Your task to perform on an android device: Open Yahoo.com Image 0: 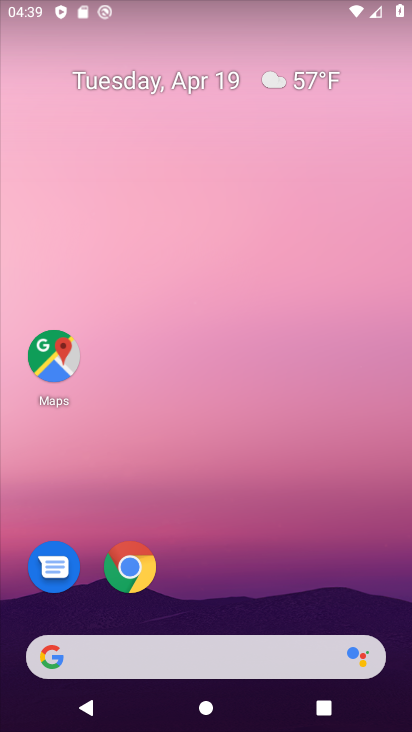
Step 0: drag from (362, 584) to (341, 167)
Your task to perform on an android device: Open Yahoo.com Image 1: 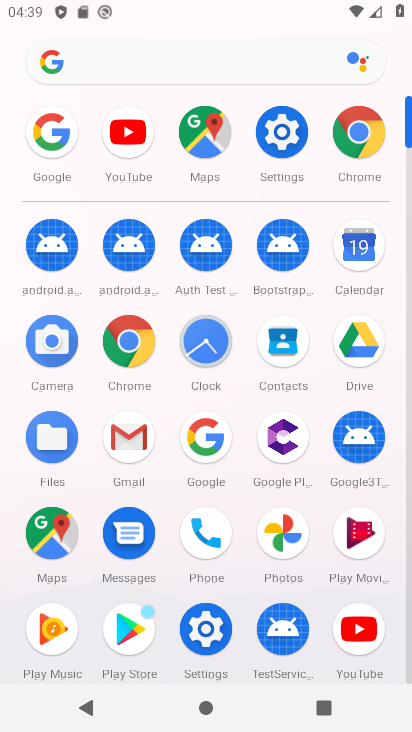
Step 1: click (138, 356)
Your task to perform on an android device: Open Yahoo.com Image 2: 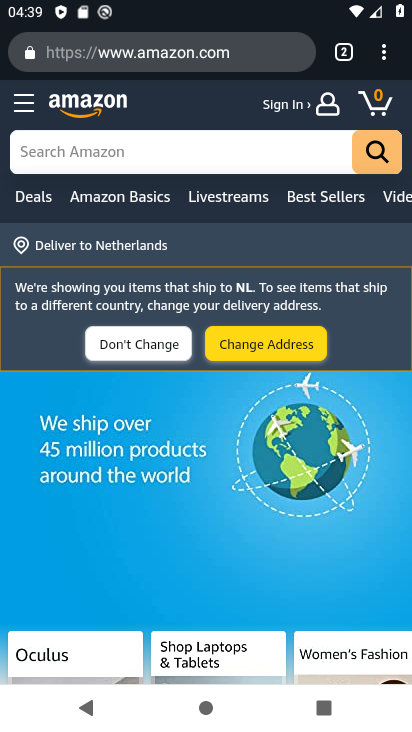
Step 2: press back button
Your task to perform on an android device: Open Yahoo.com Image 3: 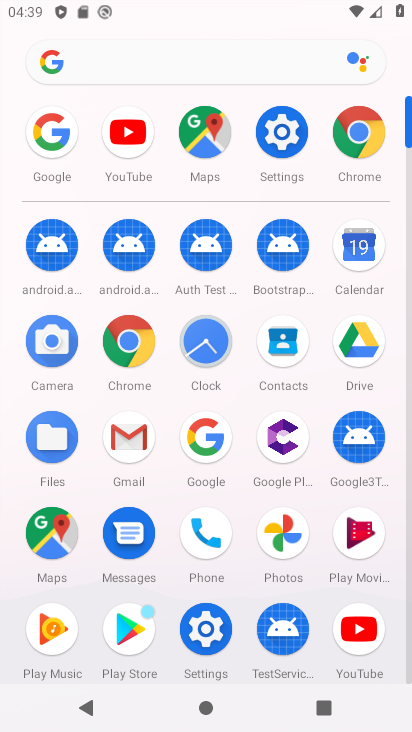
Step 3: click (140, 338)
Your task to perform on an android device: Open Yahoo.com Image 4: 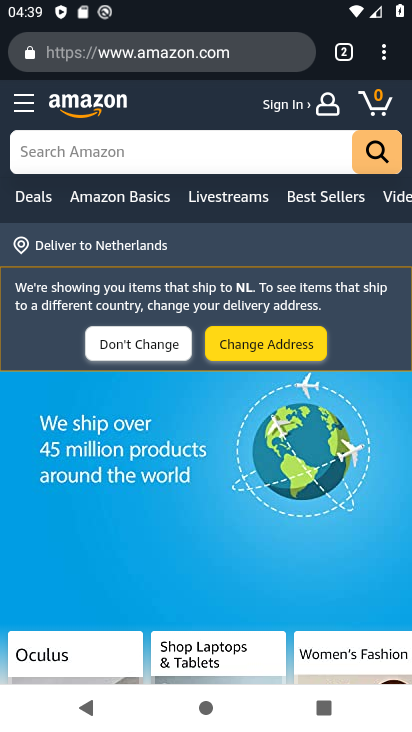
Step 4: click (238, 45)
Your task to perform on an android device: Open Yahoo.com Image 5: 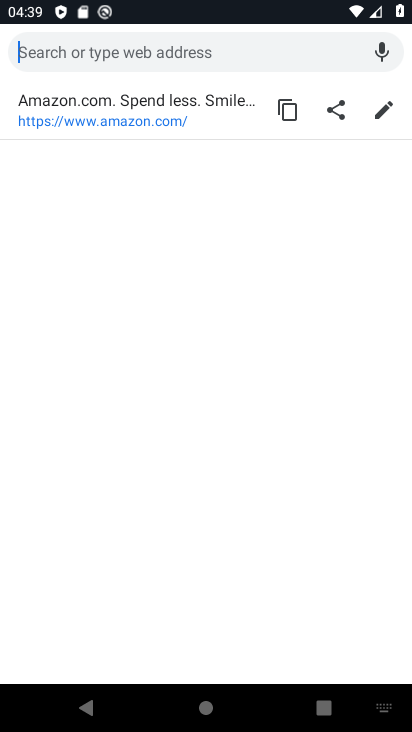
Step 5: type "yahoo,com"
Your task to perform on an android device: Open Yahoo.com Image 6: 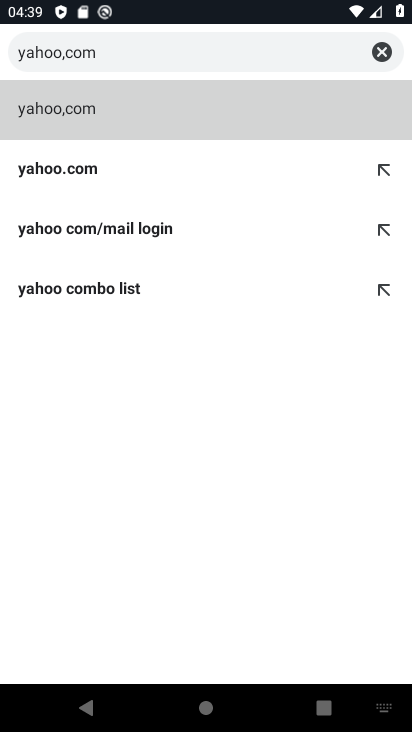
Step 6: click (83, 175)
Your task to perform on an android device: Open Yahoo.com Image 7: 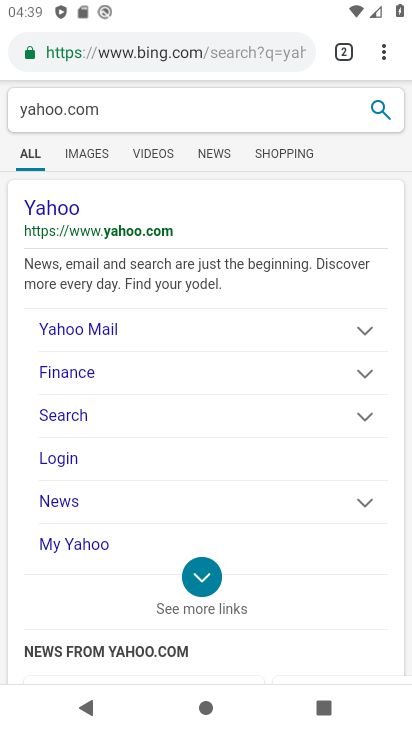
Step 7: click (56, 210)
Your task to perform on an android device: Open Yahoo.com Image 8: 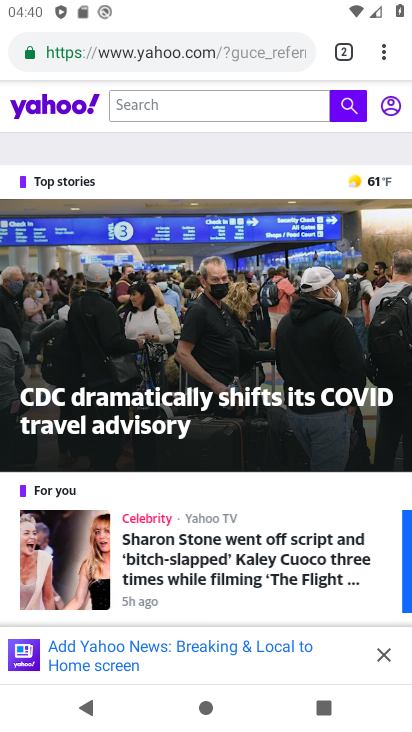
Step 8: task complete